Your task to perform on an android device: remove spam from my inbox in the gmail app Image 0: 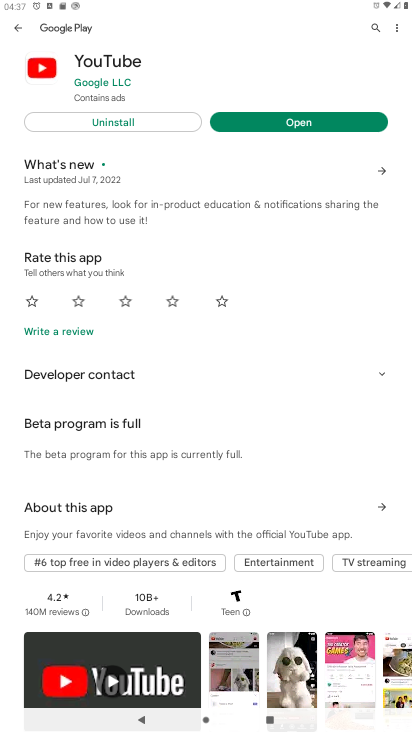
Step 0: press home button
Your task to perform on an android device: remove spam from my inbox in the gmail app Image 1: 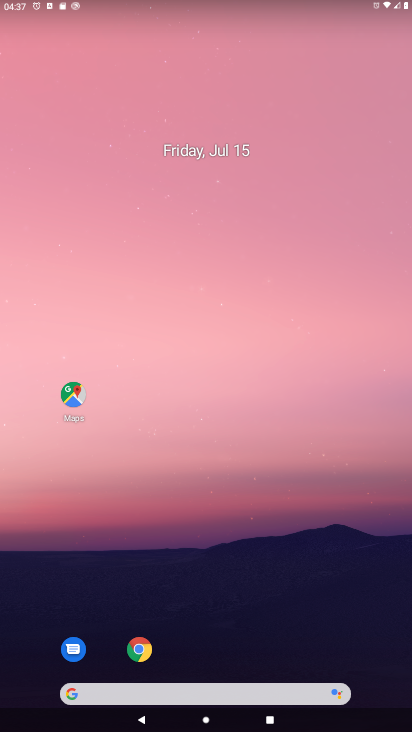
Step 1: drag from (384, 682) to (343, 149)
Your task to perform on an android device: remove spam from my inbox in the gmail app Image 2: 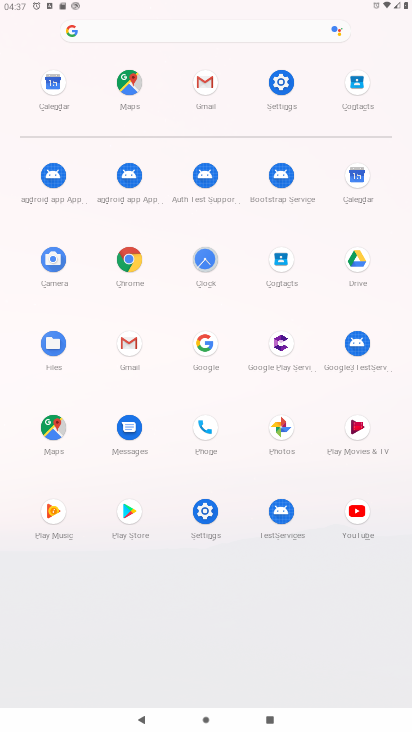
Step 2: click (127, 346)
Your task to perform on an android device: remove spam from my inbox in the gmail app Image 3: 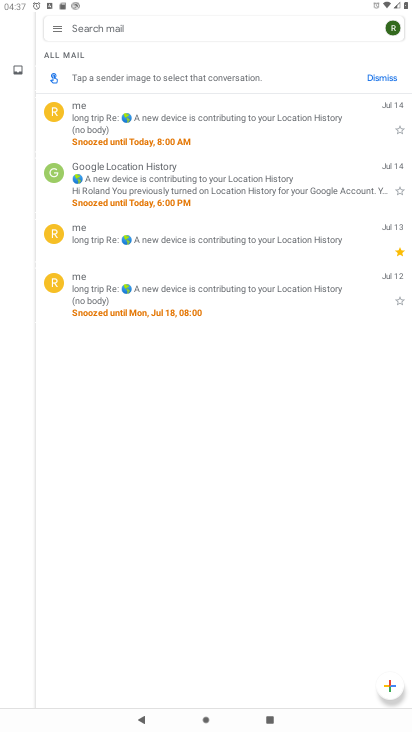
Step 3: click (53, 30)
Your task to perform on an android device: remove spam from my inbox in the gmail app Image 4: 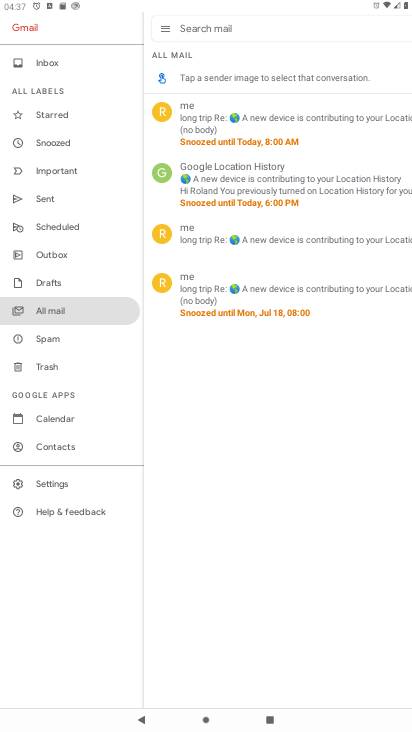
Step 4: click (49, 349)
Your task to perform on an android device: remove spam from my inbox in the gmail app Image 5: 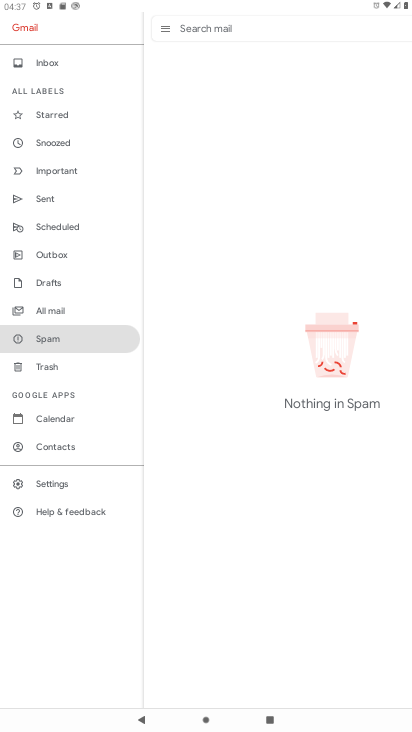
Step 5: task complete